Your task to perform on an android device: open app "Spotify: Music and Podcasts" Image 0: 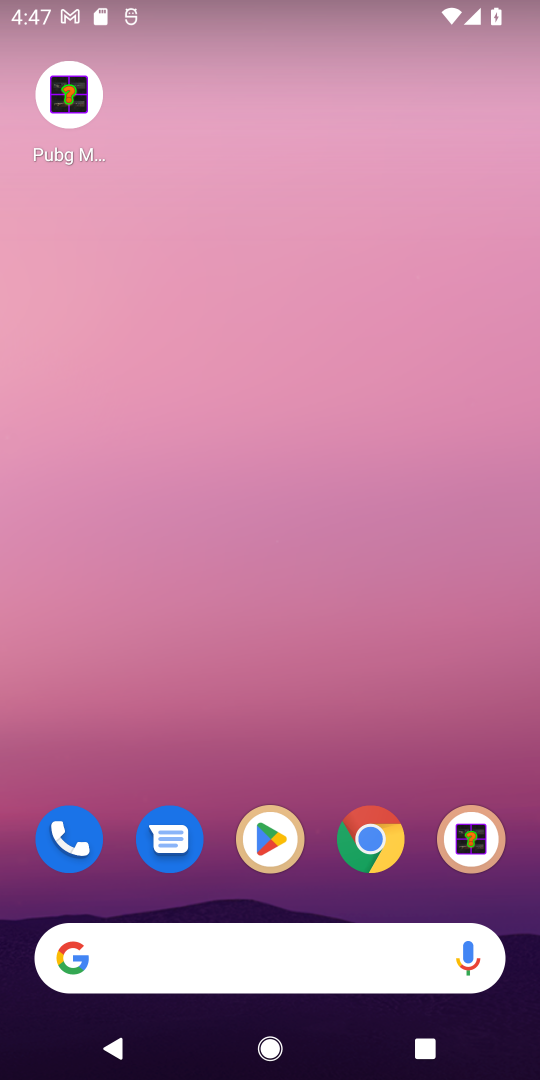
Step 0: click (256, 842)
Your task to perform on an android device: open app "Spotify: Music and Podcasts" Image 1: 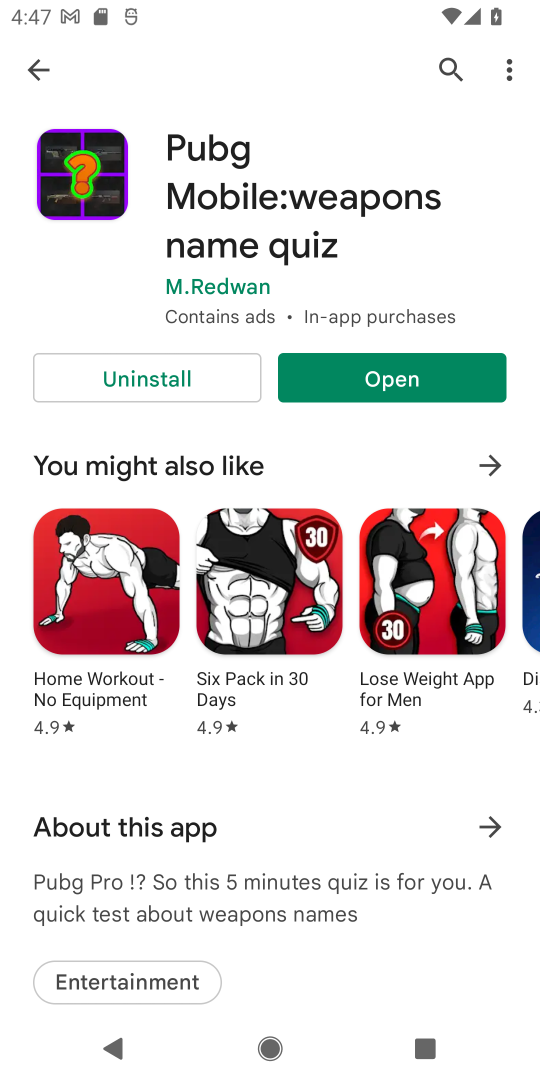
Step 1: click (454, 56)
Your task to perform on an android device: open app "Spotify: Music and Podcasts" Image 2: 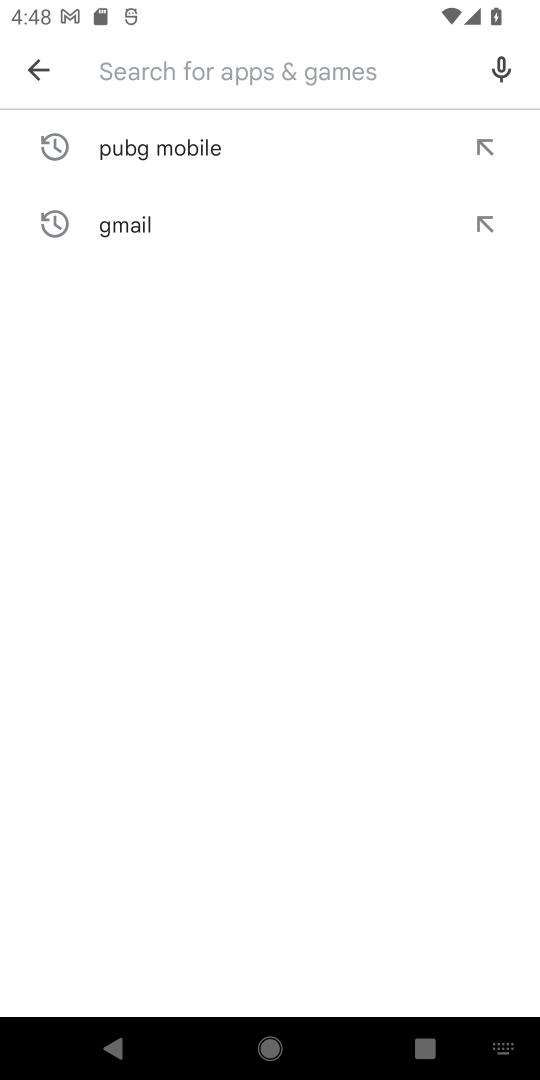
Step 2: type "Spotify: Music and Podcasts"
Your task to perform on an android device: open app "Spotify: Music and Podcasts" Image 3: 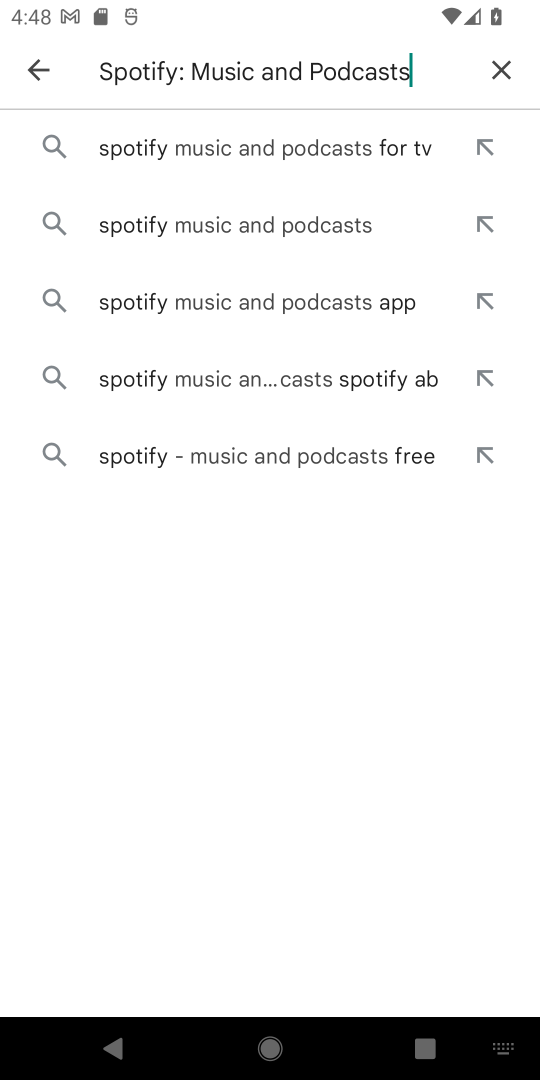
Step 3: click (194, 135)
Your task to perform on an android device: open app "Spotify: Music and Podcasts" Image 4: 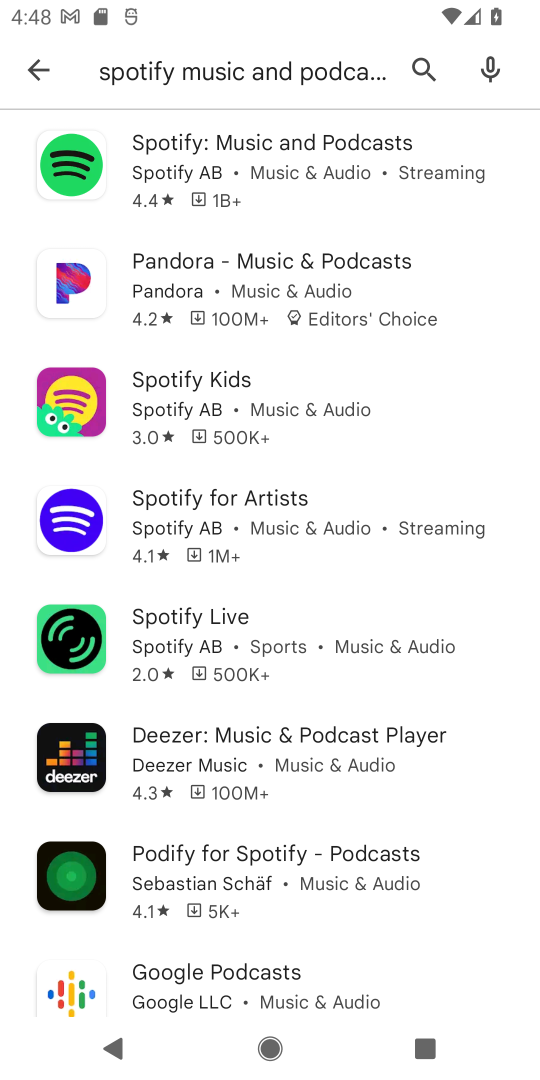
Step 4: click (256, 169)
Your task to perform on an android device: open app "Spotify: Music and Podcasts" Image 5: 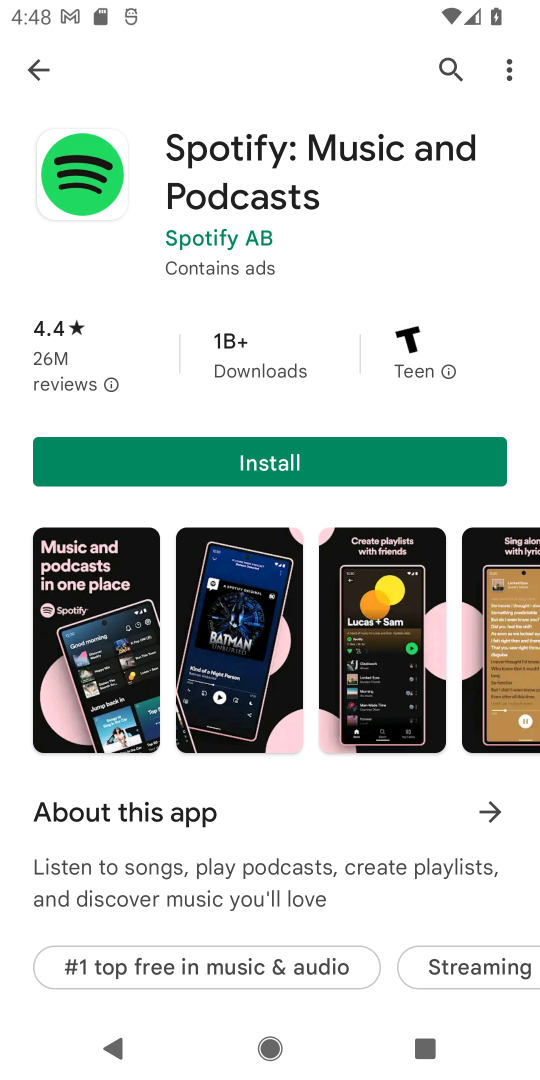
Step 5: task complete